Your task to perform on an android device: clear all cookies in the chrome app Image 0: 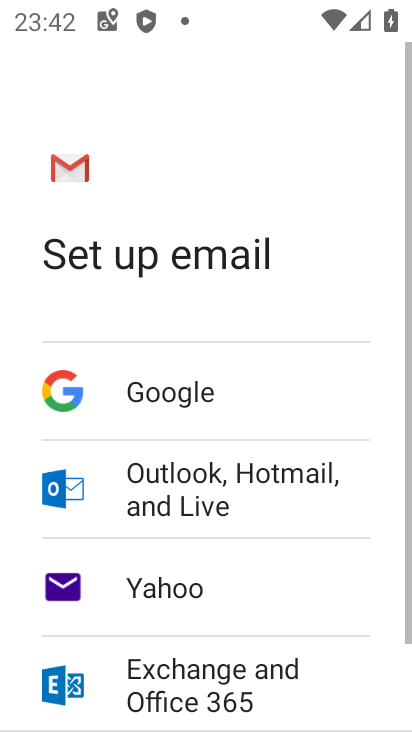
Step 0: press home button
Your task to perform on an android device: clear all cookies in the chrome app Image 1: 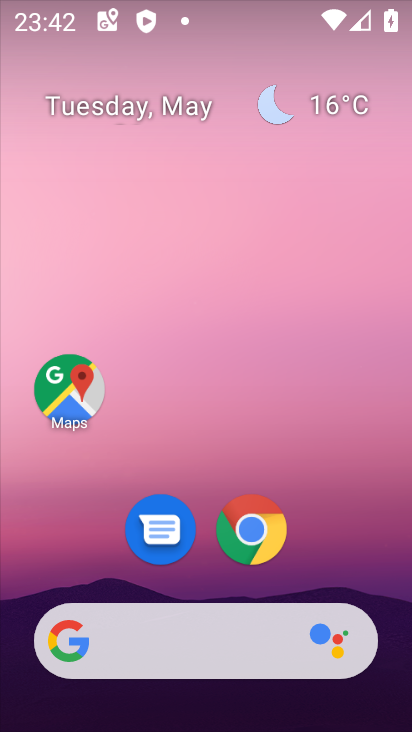
Step 1: drag from (52, 527) to (205, 136)
Your task to perform on an android device: clear all cookies in the chrome app Image 2: 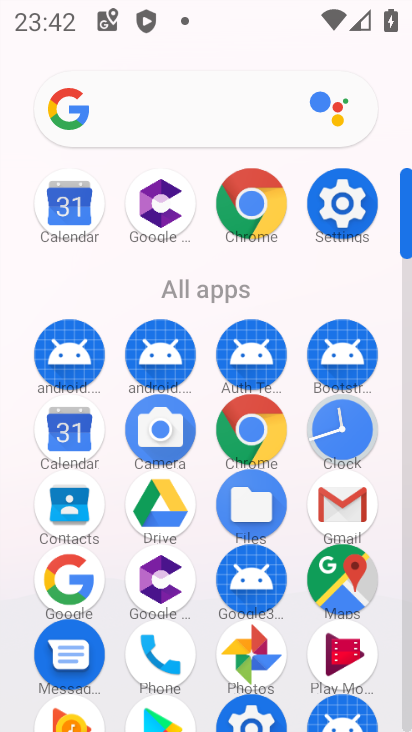
Step 2: click (269, 430)
Your task to perform on an android device: clear all cookies in the chrome app Image 3: 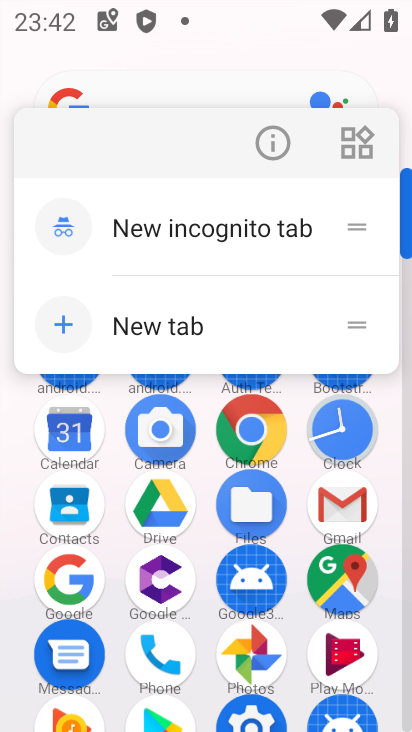
Step 3: click (269, 430)
Your task to perform on an android device: clear all cookies in the chrome app Image 4: 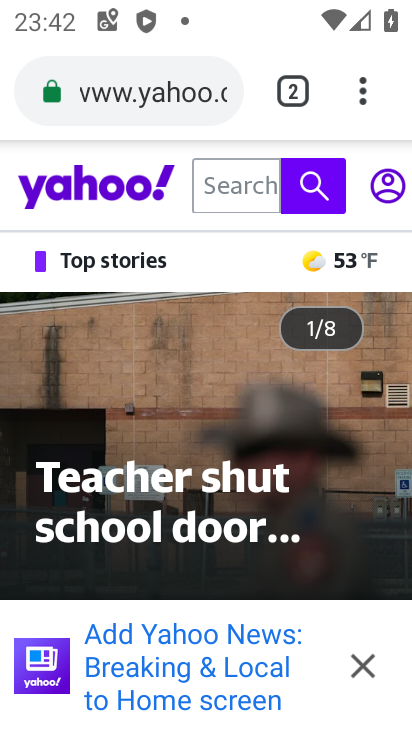
Step 4: drag from (372, 92) to (274, 568)
Your task to perform on an android device: clear all cookies in the chrome app Image 5: 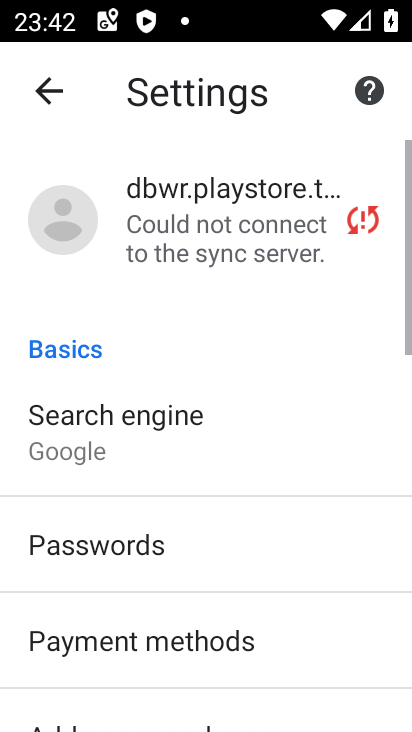
Step 5: drag from (248, 625) to (321, 192)
Your task to perform on an android device: clear all cookies in the chrome app Image 6: 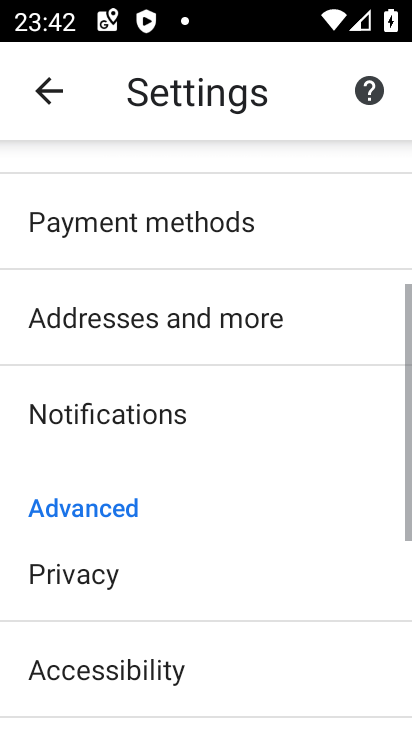
Step 6: drag from (220, 554) to (262, 399)
Your task to perform on an android device: clear all cookies in the chrome app Image 7: 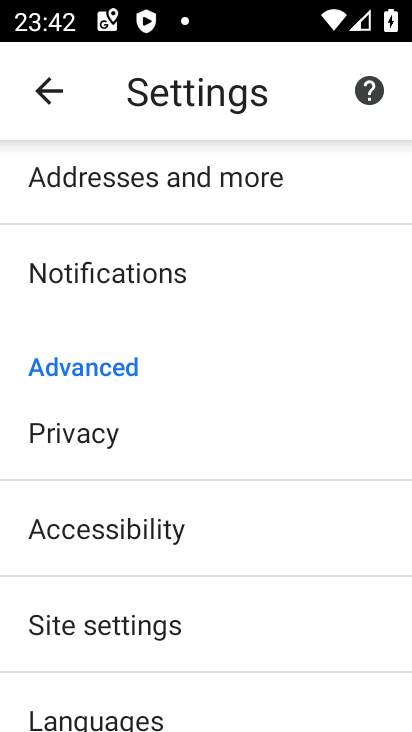
Step 7: drag from (198, 660) to (285, 332)
Your task to perform on an android device: clear all cookies in the chrome app Image 8: 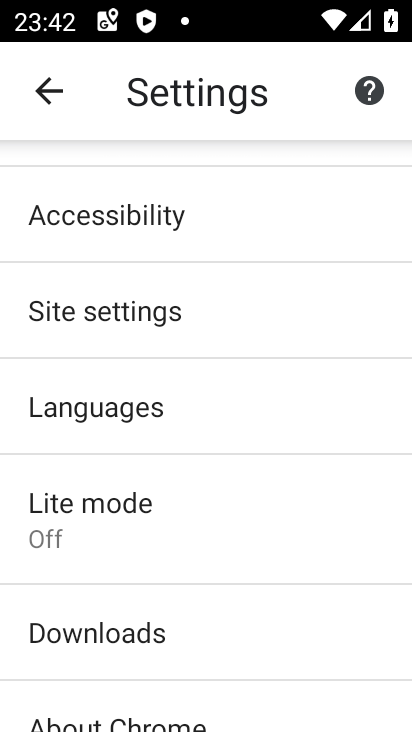
Step 8: drag from (240, 254) to (197, 594)
Your task to perform on an android device: clear all cookies in the chrome app Image 9: 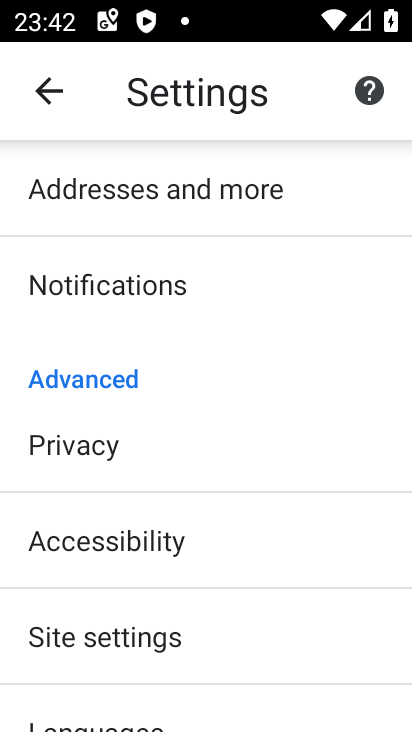
Step 9: click (145, 466)
Your task to perform on an android device: clear all cookies in the chrome app Image 10: 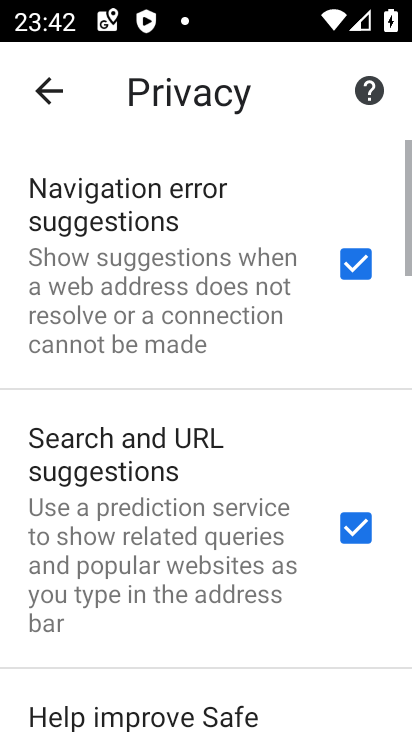
Step 10: drag from (162, 624) to (318, 38)
Your task to perform on an android device: clear all cookies in the chrome app Image 11: 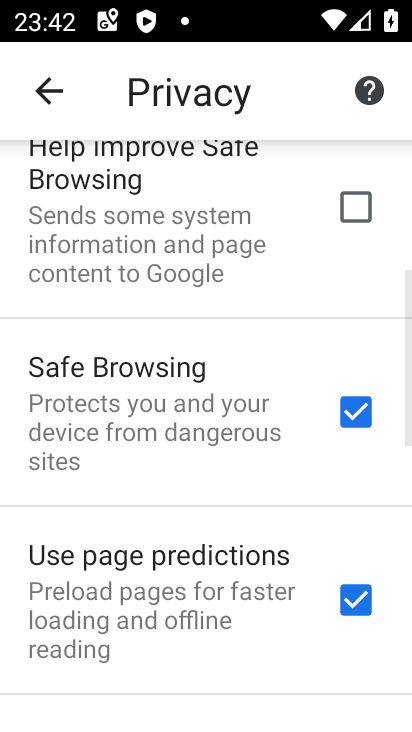
Step 11: drag from (151, 669) to (303, 113)
Your task to perform on an android device: clear all cookies in the chrome app Image 12: 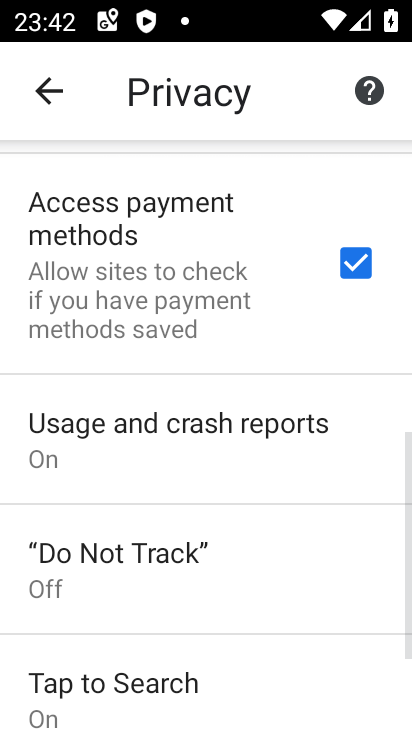
Step 12: drag from (140, 683) to (300, 227)
Your task to perform on an android device: clear all cookies in the chrome app Image 13: 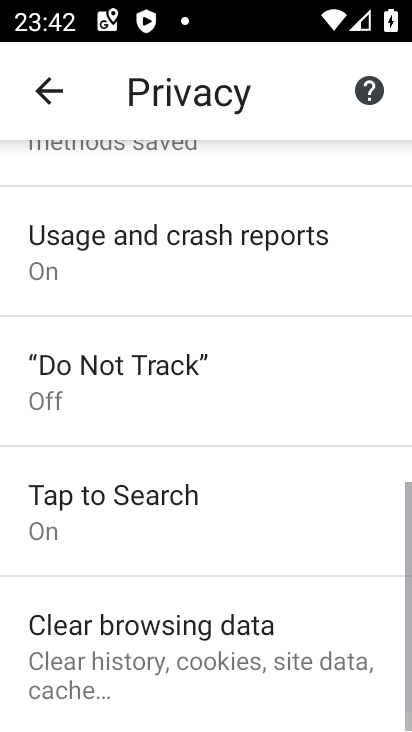
Step 13: click (208, 666)
Your task to perform on an android device: clear all cookies in the chrome app Image 14: 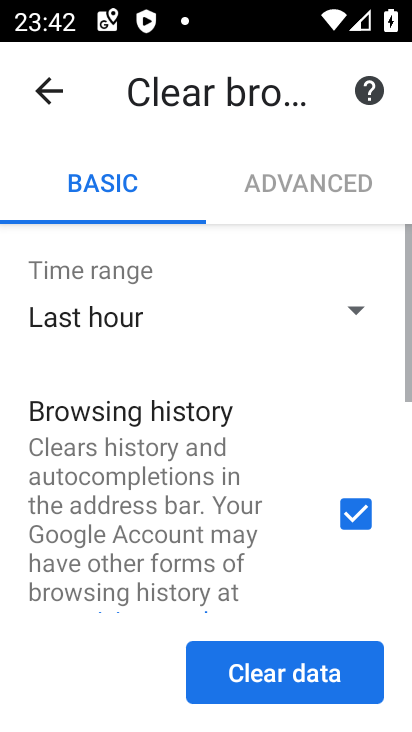
Step 14: drag from (166, 564) to (221, 346)
Your task to perform on an android device: clear all cookies in the chrome app Image 15: 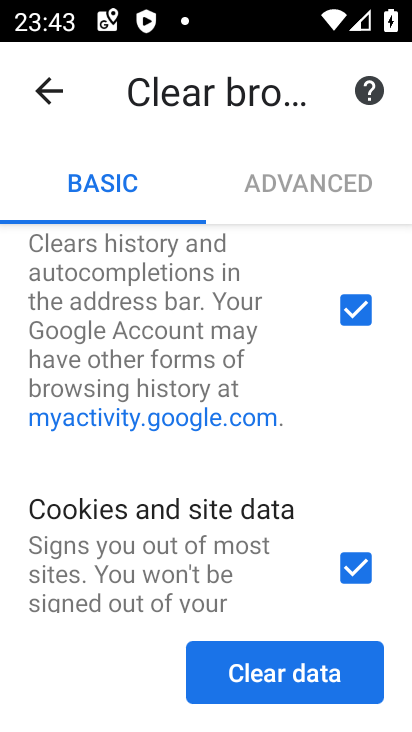
Step 15: click (358, 308)
Your task to perform on an android device: clear all cookies in the chrome app Image 16: 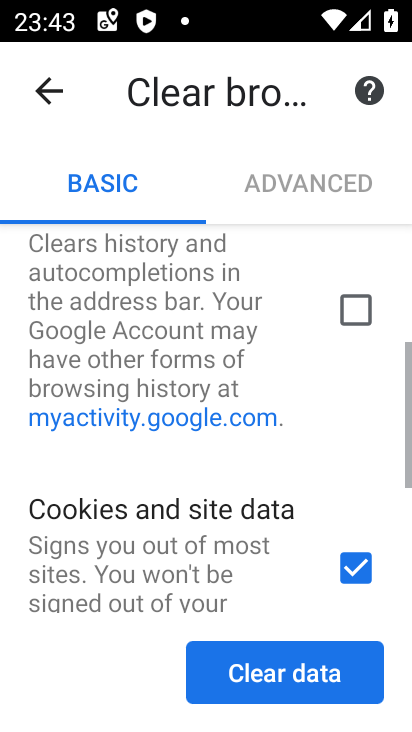
Step 16: drag from (98, 571) to (258, 104)
Your task to perform on an android device: clear all cookies in the chrome app Image 17: 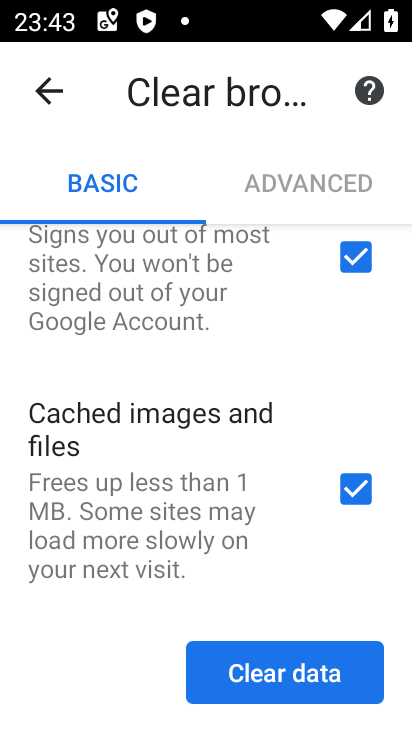
Step 17: click (357, 491)
Your task to perform on an android device: clear all cookies in the chrome app Image 18: 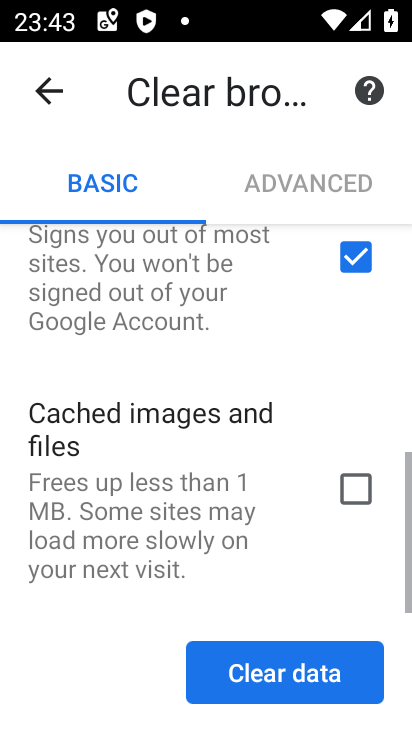
Step 18: click (288, 661)
Your task to perform on an android device: clear all cookies in the chrome app Image 19: 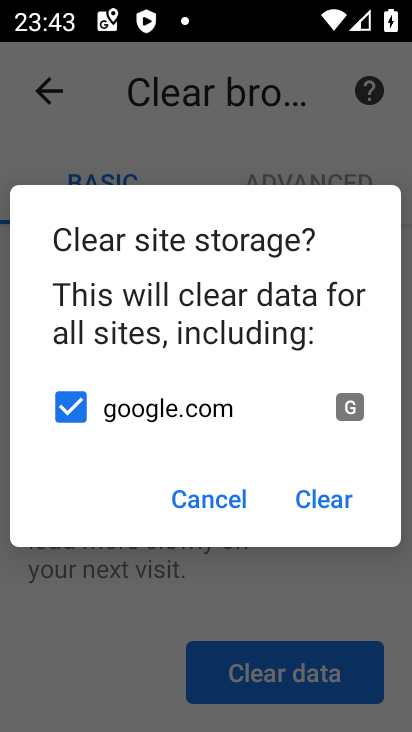
Step 19: click (348, 503)
Your task to perform on an android device: clear all cookies in the chrome app Image 20: 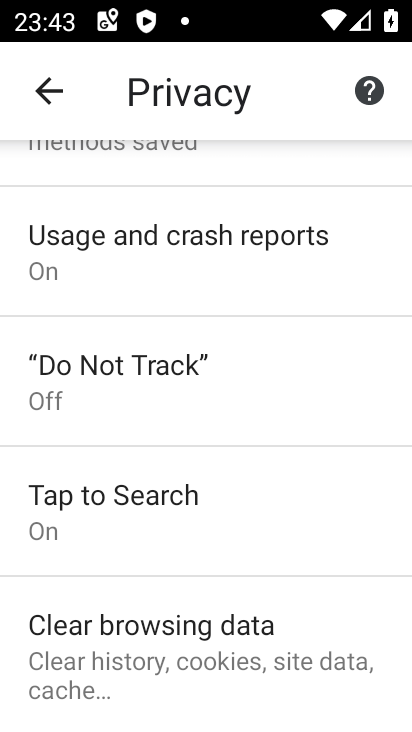
Step 20: task complete